Your task to perform on an android device: Open Reddit.com Image 0: 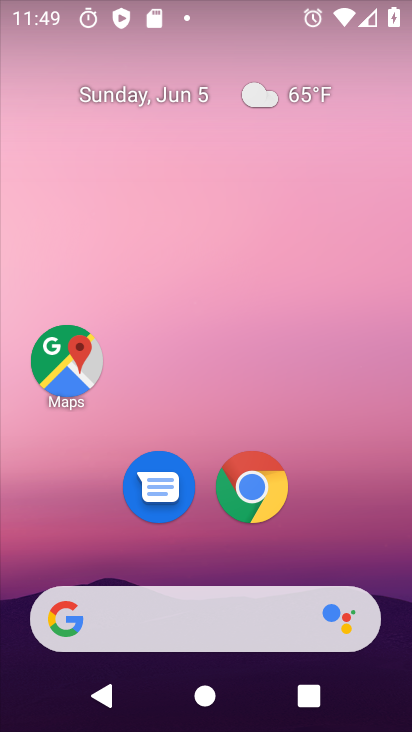
Step 0: click (254, 488)
Your task to perform on an android device: Open Reddit.com Image 1: 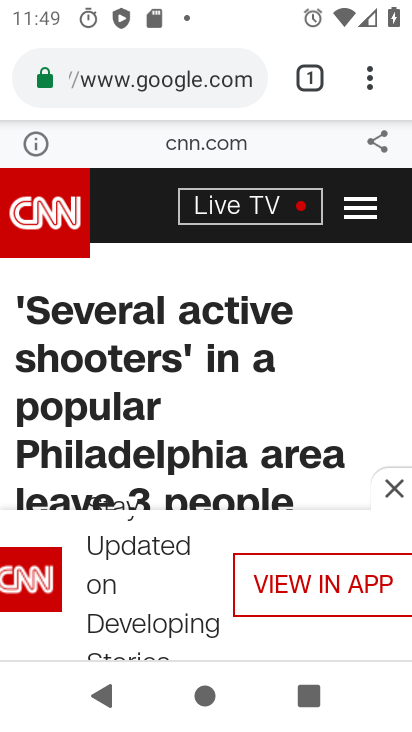
Step 1: click (198, 78)
Your task to perform on an android device: Open Reddit.com Image 2: 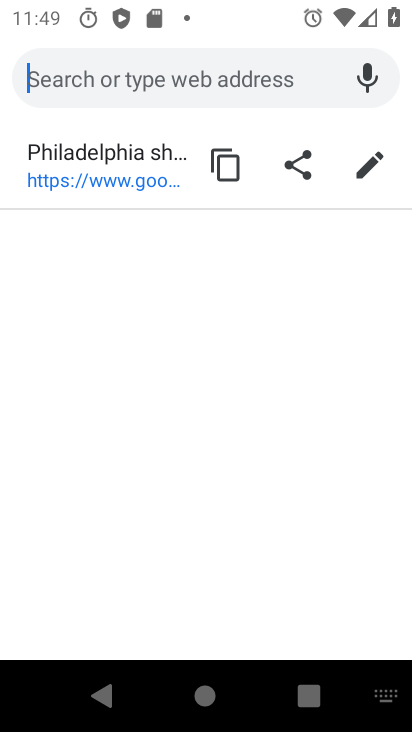
Step 2: type "Reddit.com"
Your task to perform on an android device: Open Reddit.com Image 3: 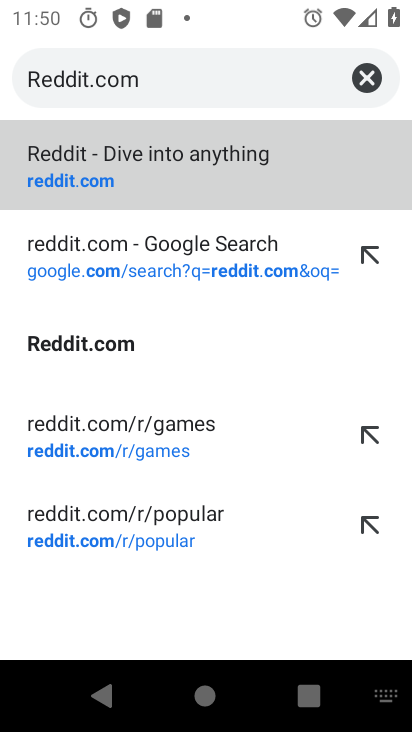
Step 3: click (114, 343)
Your task to perform on an android device: Open Reddit.com Image 4: 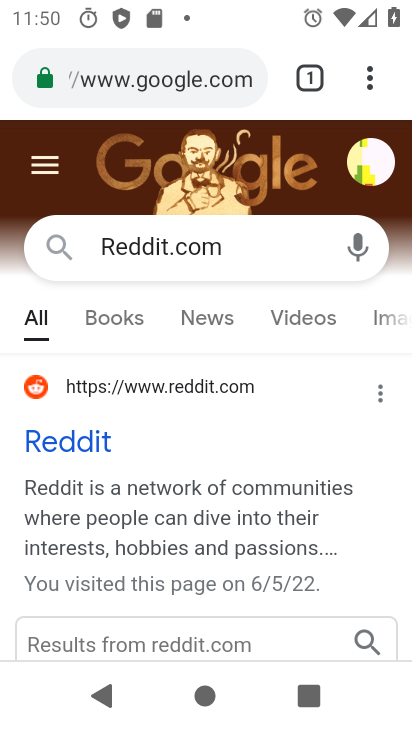
Step 4: click (80, 442)
Your task to perform on an android device: Open Reddit.com Image 5: 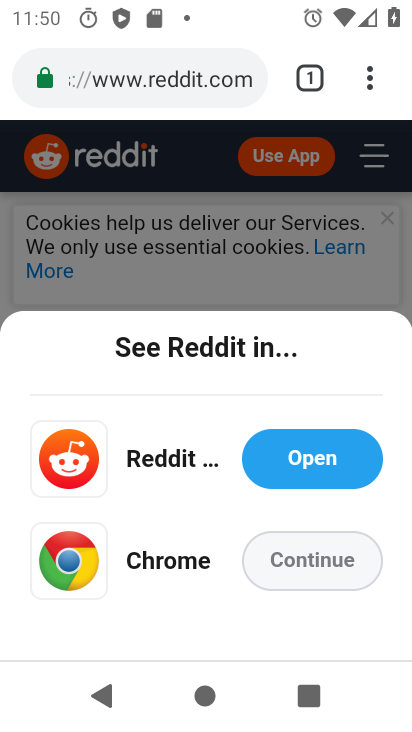
Step 5: click (282, 580)
Your task to perform on an android device: Open Reddit.com Image 6: 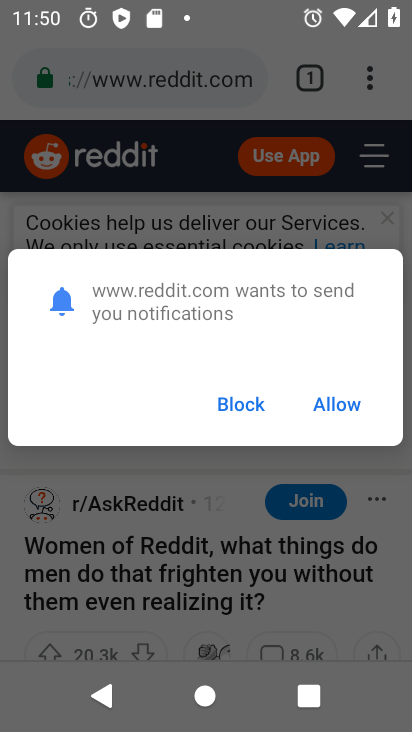
Step 6: click (328, 402)
Your task to perform on an android device: Open Reddit.com Image 7: 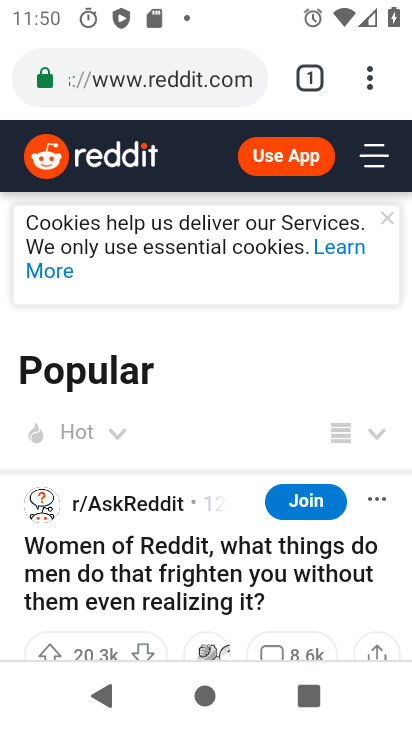
Step 7: task complete